Your task to perform on an android device: Go to notification settings Image 0: 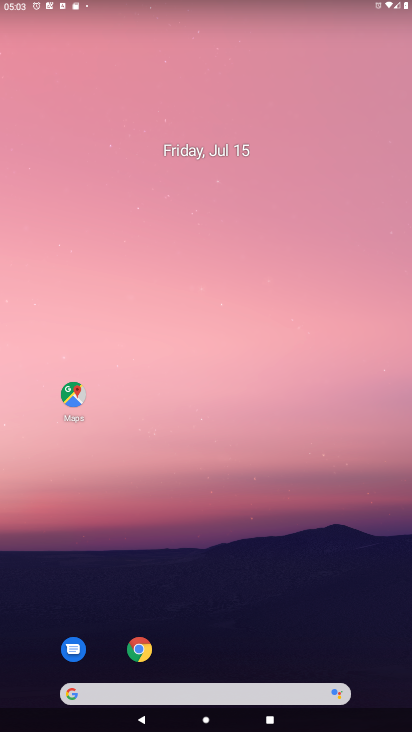
Step 0: drag from (379, 673) to (338, 97)
Your task to perform on an android device: Go to notification settings Image 1: 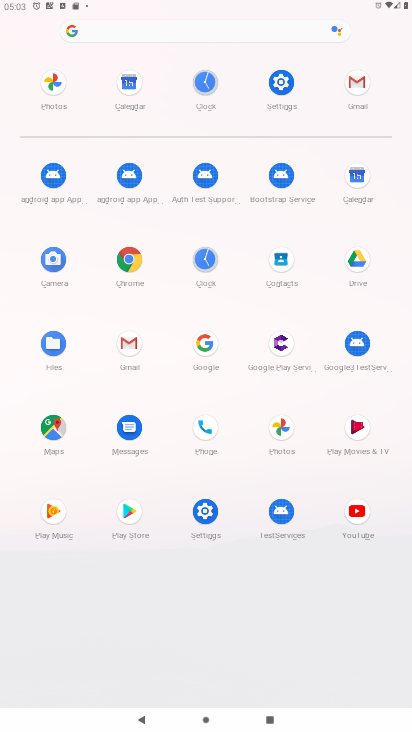
Step 1: click (203, 511)
Your task to perform on an android device: Go to notification settings Image 2: 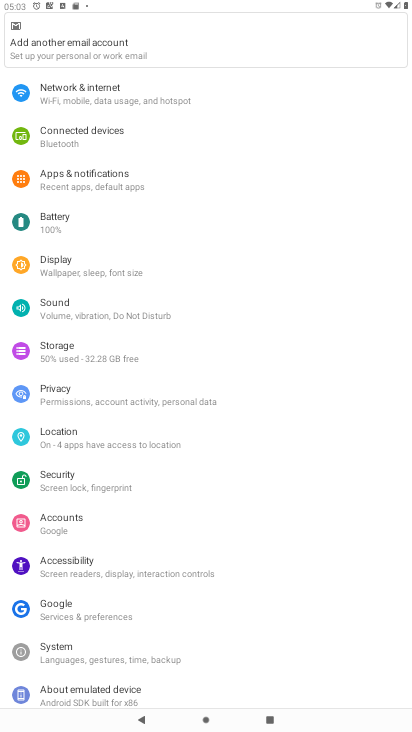
Step 2: click (95, 180)
Your task to perform on an android device: Go to notification settings Image 3: 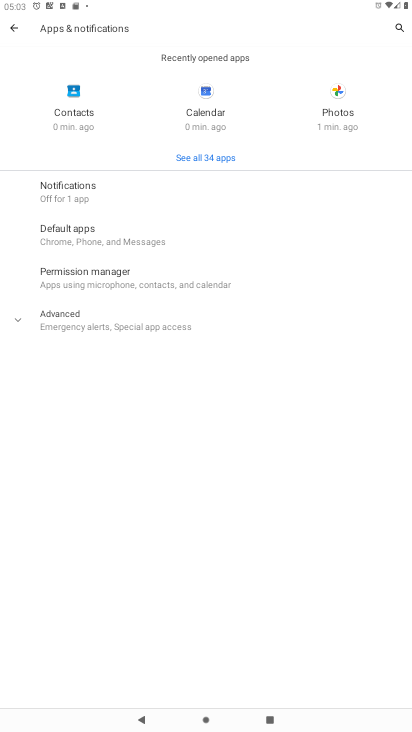
Step 3: click (73, 193)
Your task to perform on an android device: Go to notification settings Image 4: 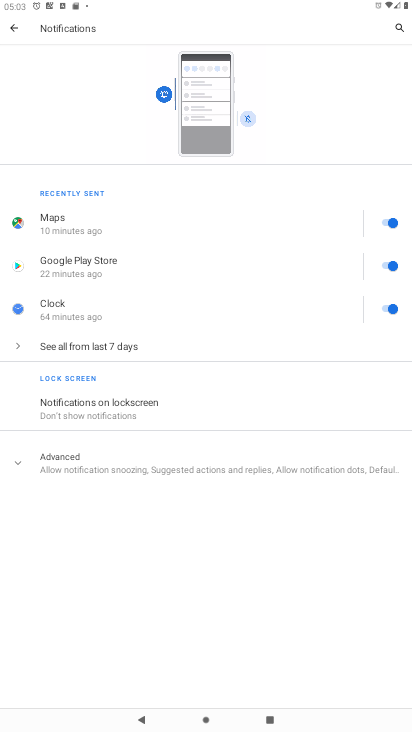
Step 4: click (15, 463)
Your task to perform on an android device: Go to notification settings Image 5: 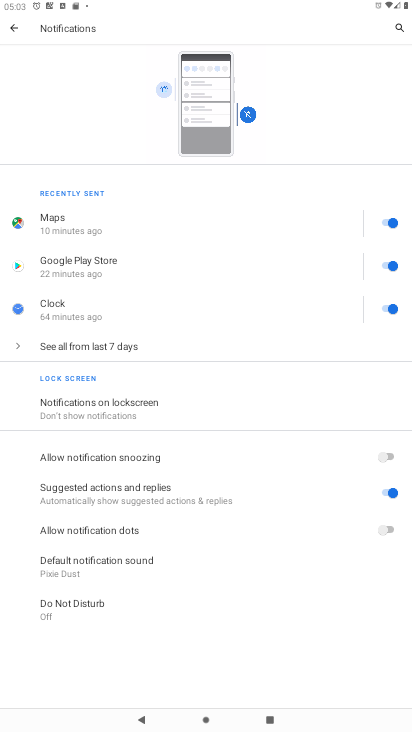
Step 5: task complete